Your task to perform on an android device: Clear all items from cart on ebay. Search for "razer blade" on ebay, select the first entry, add it to the cart, then select checkout. Image 0: 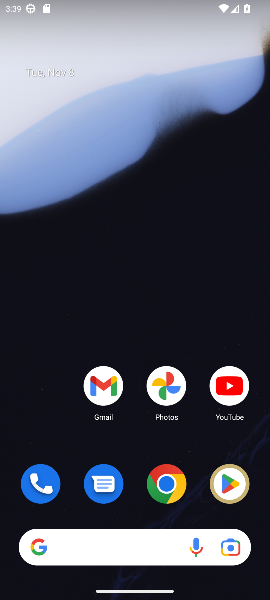
Step 0: click (168, 484)
Your task to perform on an android device: Clear all items from cart on ebay. Search for "razer blade" on ebay, select the first entry, add it to the cart, then select checkout. Image 1: 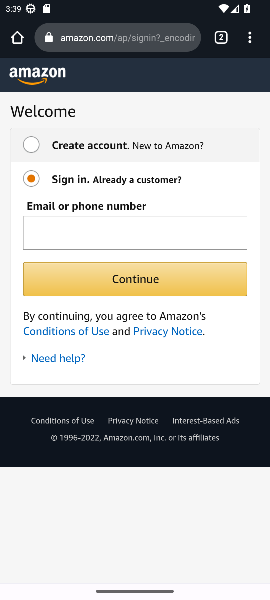
Step 1: click (55, 39)
Your task to perform on an android device: Clear all items from cart on ebay. Search for "razer blade" on ebay, select the first entry, add it to the cart, then select checkout. Image 2: 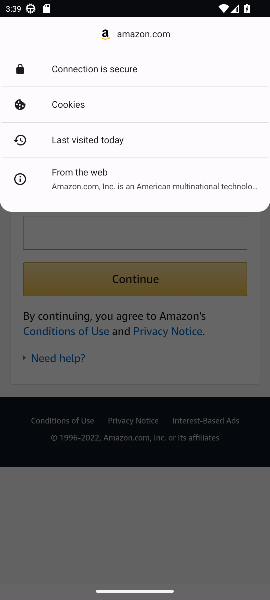
Step 2: press back button
Your task to perform on an android device: Clear all items from cart on ebay. Search for "razer blade" on ebay, select the first entry, add it to the cart, then select checkout. Image 3: 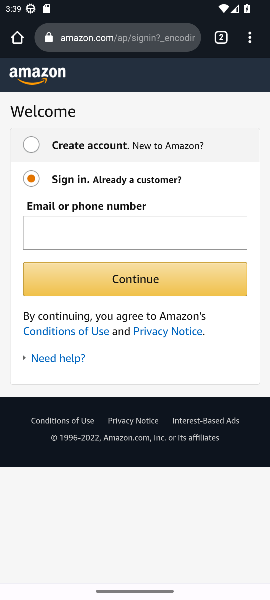
Step 3: click (124, 44)
Your task to perform on an android device: Clear all items from cart on ebay. Search for "razer blade" on ebay, select the first entry, add it to the cart, then select checkout. Image 4: 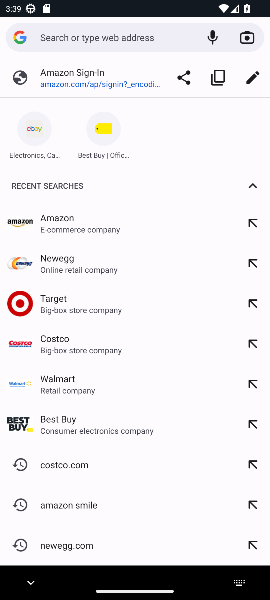
Step 4: click (41, 135)
Your task to perform on an android device: Clear all items from cart on ebay. Search for "razer blade" on ebay, select the first entry, add it to the cart, then select checkout. Image 5: 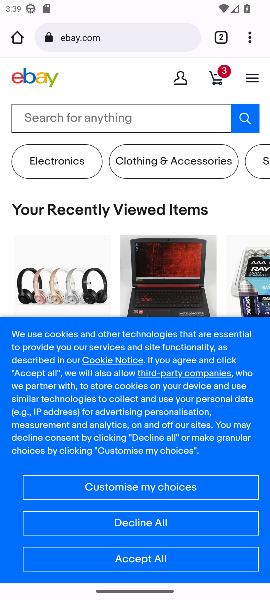
Step 5: click (214, 83)
Your task to perform on an android device: Clear all items from cart on ebay. Search for "razer blade" on ebay, select the first entry, add it to the cart, then select checkout. Image 6: 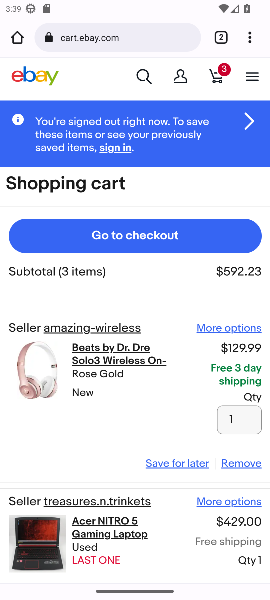
Step 6: click (236, 460)
Your task to perform on an android device: Clear all items from cart on ebay. Search for "razer blade" on ebay, select the first entry, add it to the cart, then select checkout. Image 7: 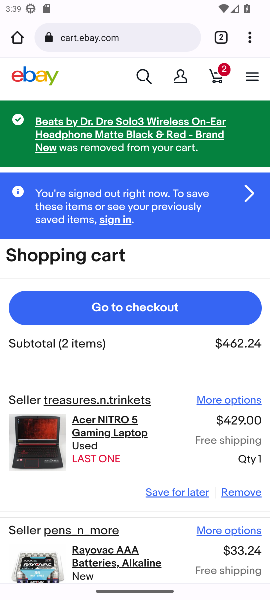
Step 7: click (249, 490)
Your task to perform on an android device: Clear all items from cart on ebay. Search for "razer blade" on ebay, select the first entry, add it to the cart, then select checkout. Image 8: 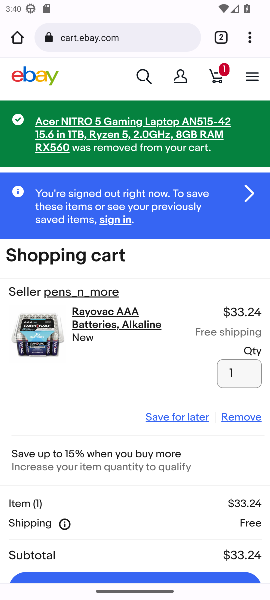
Step 8: click (236, 418)
Your task to perform on an android device: Clear all items from cart on ebay. Search for "razer blade" on ebay, select the first entry, add it to the cart, then select checkout. Image 9: 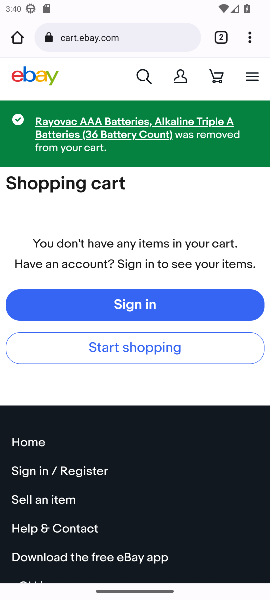
Step 9: click (141, 68)
Your task to perform on an android device: Clear all items from cart on ebay. Search for "razer blade" on ebay, select the first entry, add it to the cart, then select checkout. Image 10: 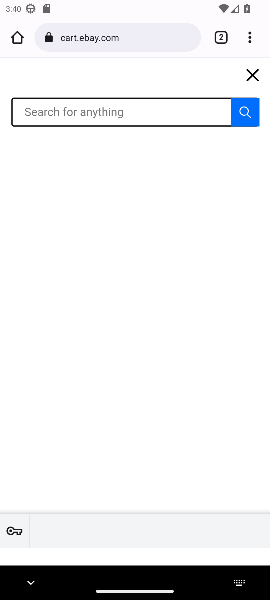
Step 10: type "razer blade"
Your task to perform on an android device: Clear all items from cart on ebay. Search for "razer blade" on ebay, select the first entry, add it to the cart, then select checkout. Image 11: 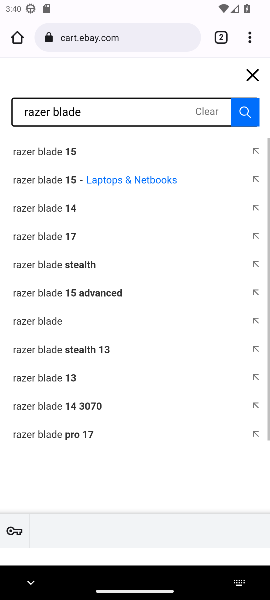
Step 11: click (237, 110)
Your task to perform on an android device: Clear all items from cart on ebay. Search for "razer blade" on ebay, select the first entry, add it to the cart, then select checkout. Image 12: 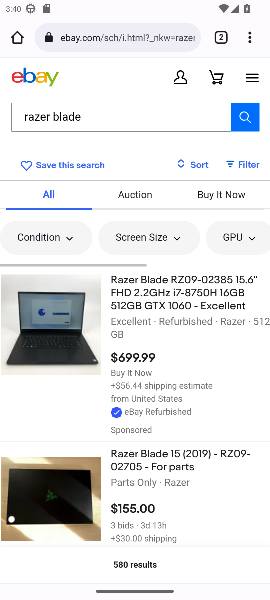
Step 12: click (152, 308)
Your task to perform on an android device: Clear all items from cart on ebay. Search for "razer blade" on ebay, select the first entry, add it to the cart, then select checkout. Image 13: 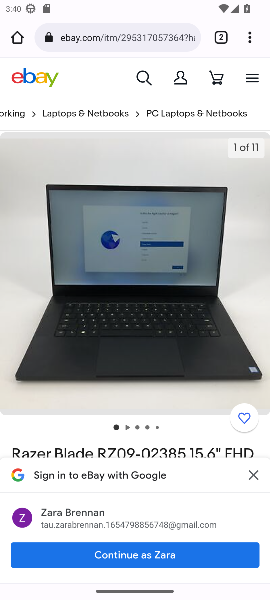
Step 13: drag from (65, 434) to (69, 405)
Your task to perform on an android device: Clear all items from cart on ebay. Search for "razer blade" on ebay, select the first entry, add it to the cart, then select checkout. Image 14: 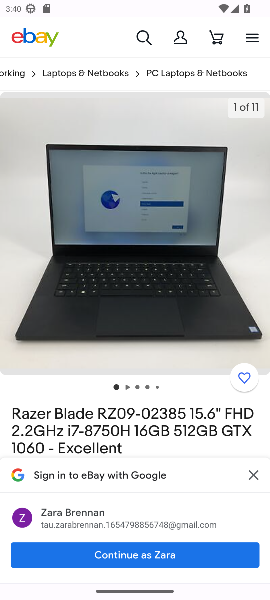
Step 14: click (176, 549)
Your task to perform on an android device: Clear all items from cart on ebay. Search for "razer blade" on ebay, select the first entry, add it to the cart, then select checkout. Image 15: 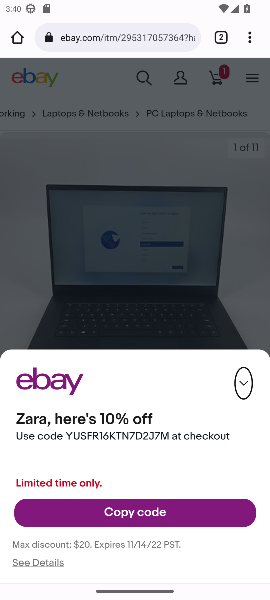
Step 15: drag from (159, 512) to (200, 282)
Your task to perform on an android device: Clear all items from cart on ebay. Search for "razer blade" on ebay, select the first entry, add it to the cart, then select checkout. Image 16: 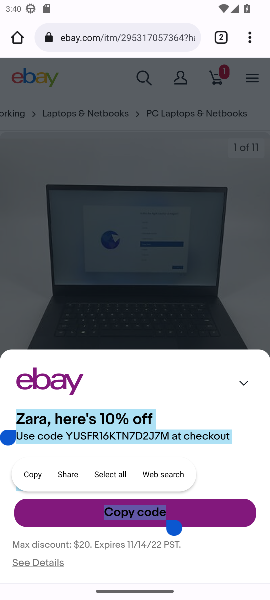
Step 16: click (147, 508)
Your task to perform on an android device: Clear all items from cart on ebay. Search for "razer blade" on ebay, select the first entry, add it to the cart, then select checkout. Image 17: 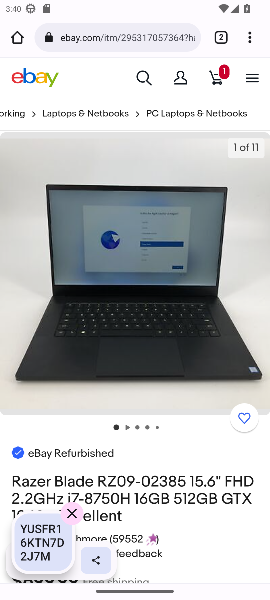
Step 17: drag from (193, 477) to (196, 185)
Your task to perform on an android device: Clear all items from cart on ebay. Search for "razer blade" on ebay, select the first entry, add it to the cart, then select checkout. Image 18: 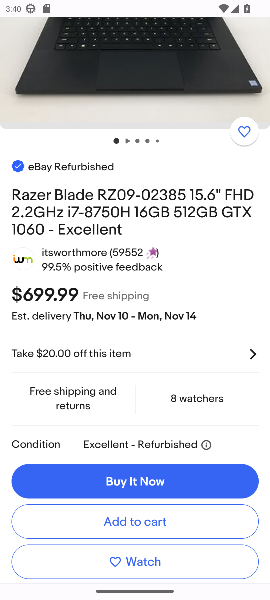
Step 18: click (149, 517)
Your task to perform on an android device: Clear all items from cart on ebay. Search for "razer blade" on ebay, select the first entry, add it to the cart, then select checkout. Image 19: 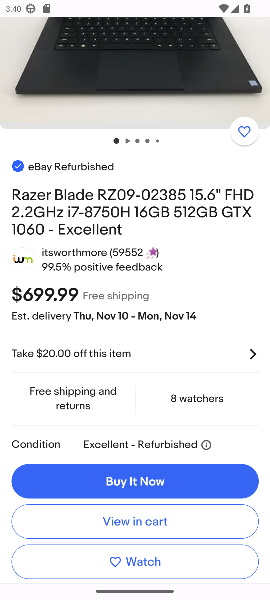
Step 19: click (149, 517)
Your task to perform on an android device: Clear all items from cart on ebay. Search for "razer blade" on ebay, select the first entry, add it to the cart, then select checkout. Image 20: 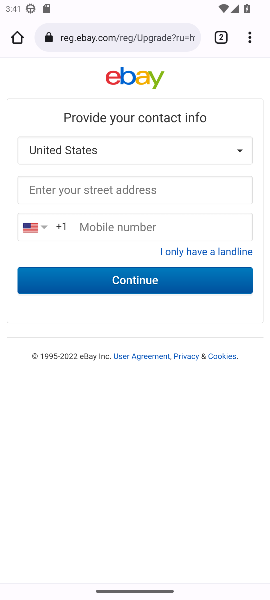
Step 20: task complete